Your task to perform on an android device: Go to Android settings Image 0: 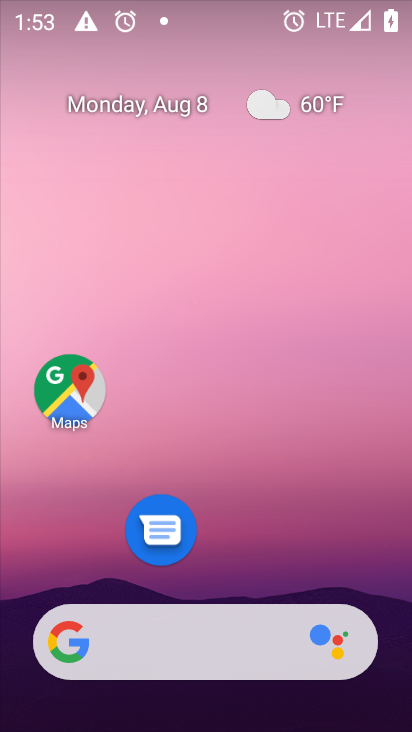
Step 0: drag from (206, 407) to (204, 31)
Your task to perform on an android device: Go to Android settings Image 1: 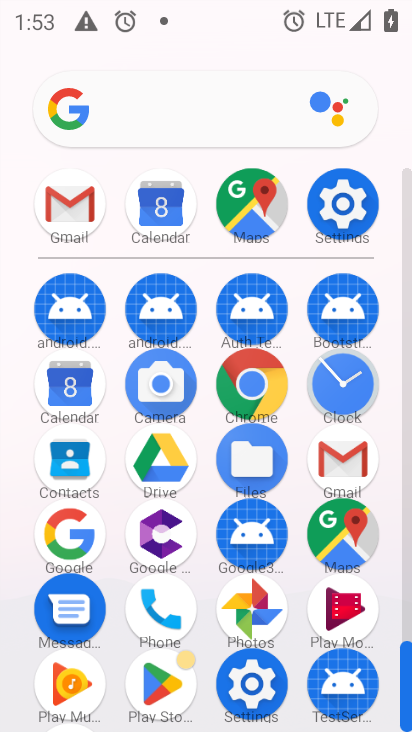
Step 1: click (341, 204)
Your task to perform on an android device: Go to Android settings Image 2: 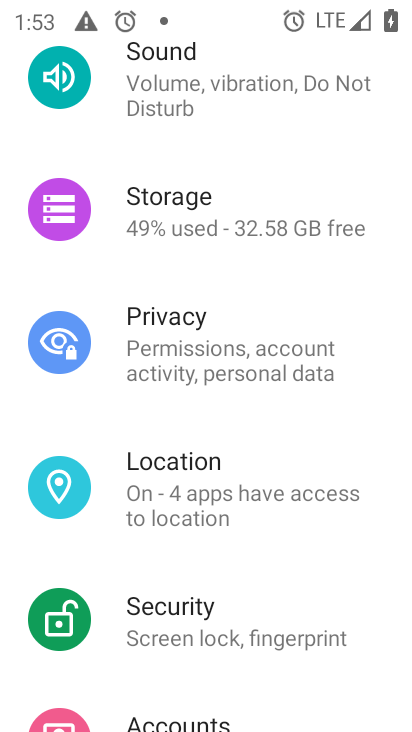
Step 2: task complete